Your task to perform on an android device: toggle notification dots Image 0: 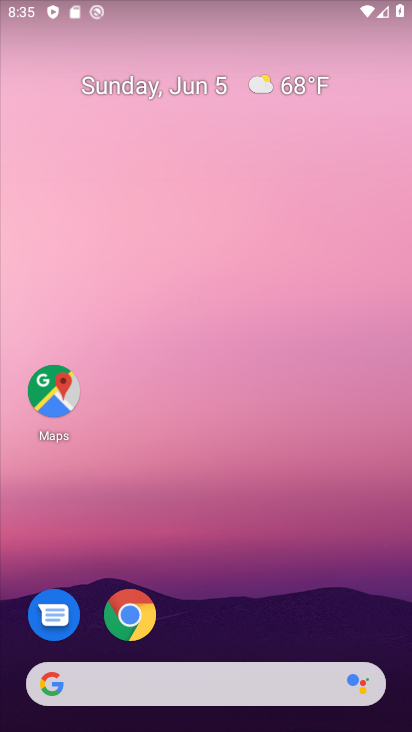
Step 0: drag from (146, 730) to (206, 149)
Your task to perform on an android device: toggle notification dots Image 1: 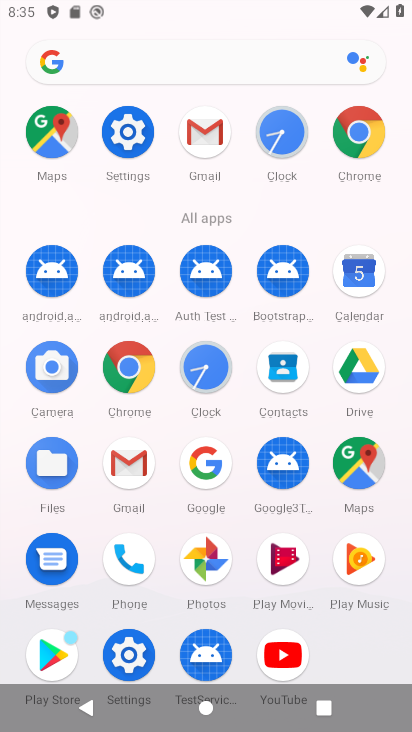
Step 1: click (119, 155)
Your task to perform on an android device: toggle notification dots Image 2: 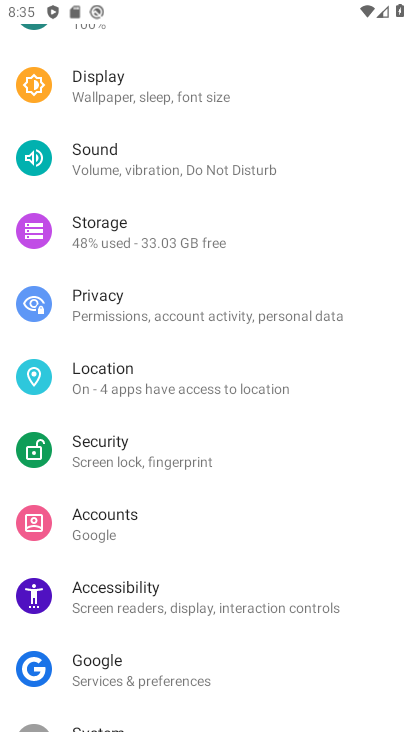
Step 2: drag from (298, 186) to (234, 567)
Your task to perform on an android device: toggle notification dots Image 3: 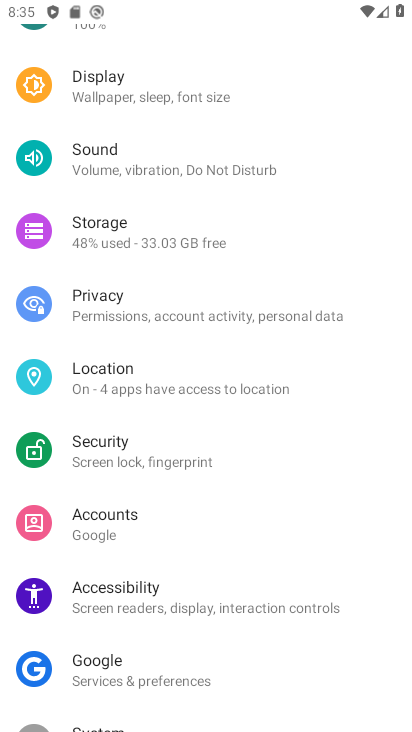
Step 3: drag from (248, 115) to (202, 454)
Your task to perform on an android device: toggle notification dots Image 4: 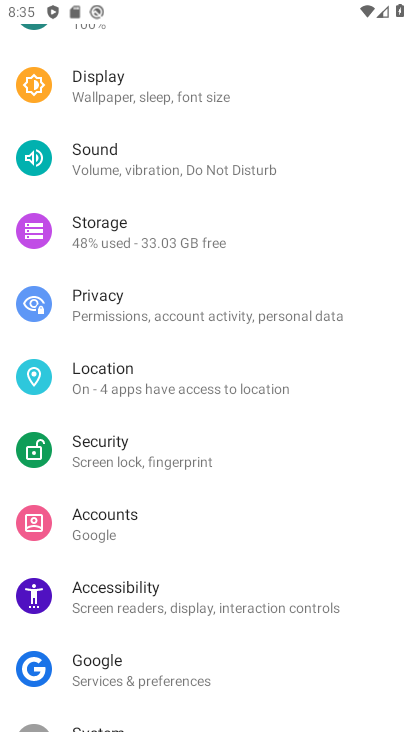
Step 4: drag from (287, 65) to (293, 461)
Your task to perform on an android device: toggle notification dots Image 5: 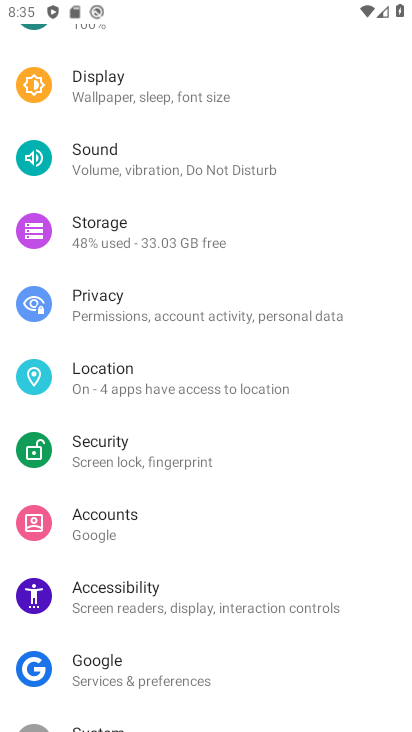
Step 5: drag from (347, 97) to (310, 646)
Your task to perform on an android device: toggle notification dots Image 6: 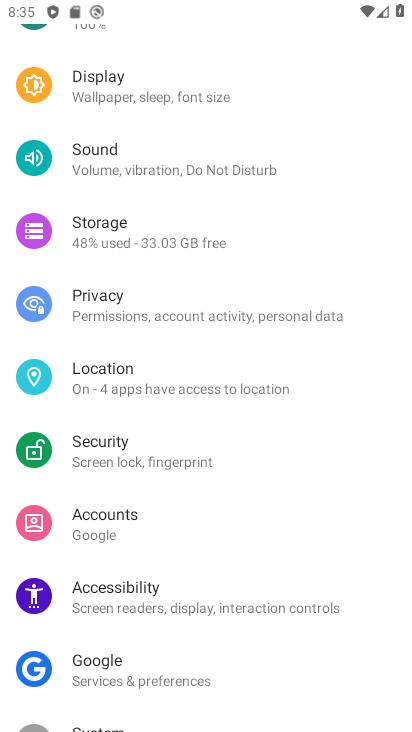
Step 6: drag from (249, 111) to (242, 665)
Your task to perform on an android device: toggle notification dots Image 7: 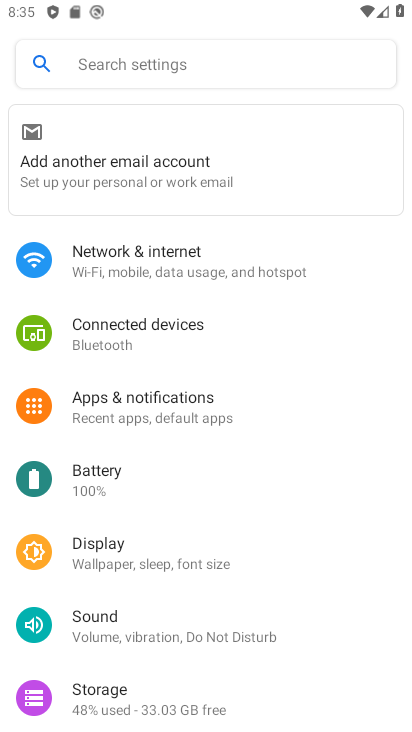
Step 7: click (146, 407)
Your task to perform on an android device: toggle notification dots Image 8: 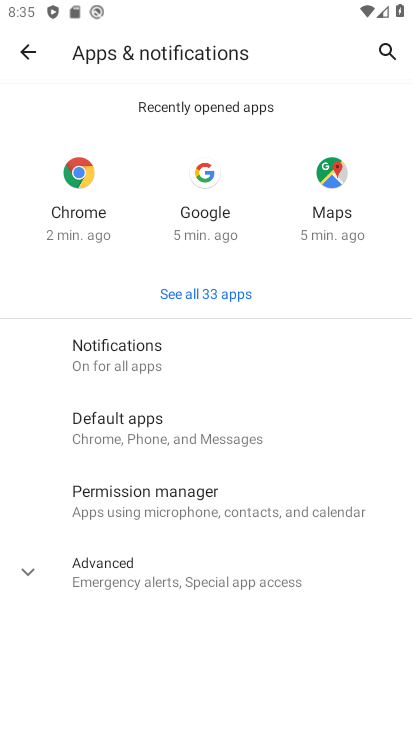
Step 8: click (170, 365)
Your task to perform on an android device: toggle notification dots Image 9: 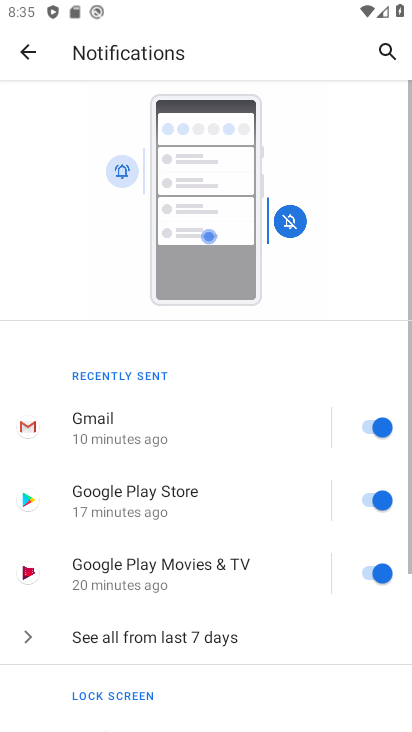
Step 9: drag from (197, 667) to (214, 295)
Your task to perform on an android device: toggle notification dots Image 10: 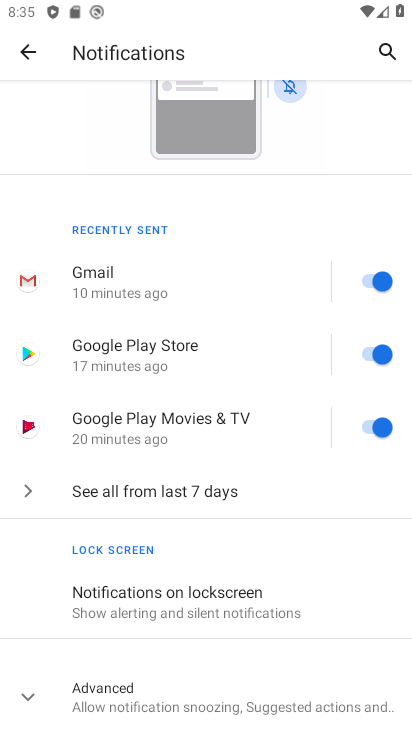
Step 10: click (85, 722)
Your task to perform on an android device: toggle notification dots Image 11: 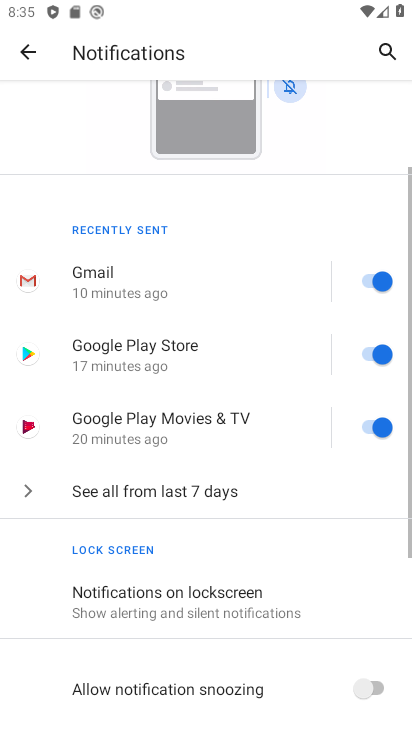
Step 11: drag from (261, 671) to (225, 217)
Your task to perform on an android device: toggle notification dots Image 12: 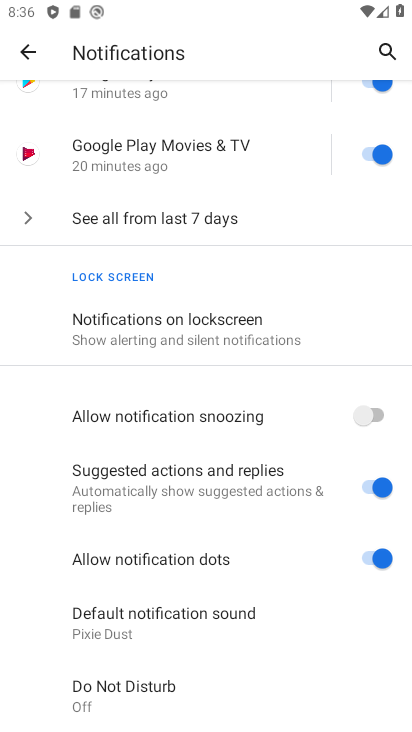
Step 12: click (391, 567)
Your task to perform on an android device: toggle notification dots Image 13: 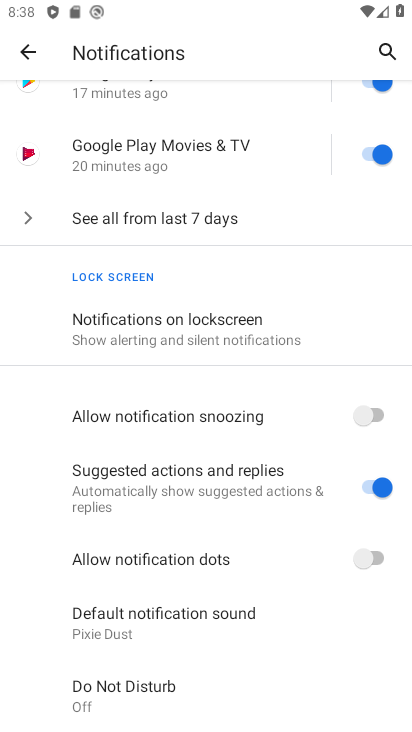
Step 13: task complete